Your task to perform on an android device: open app "Mercado Libre" (install if not already installed), go to login, and select forgot password Image 0: 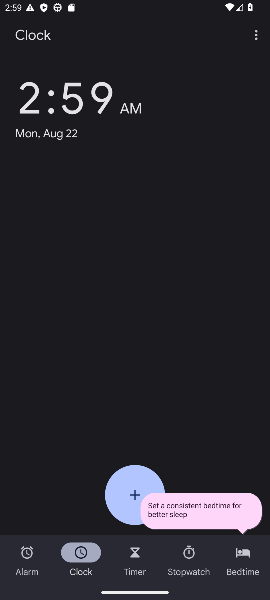
Step 0: press home button
Your task to perform on an android device: open app "Mercado Libre" (install if not already installed), go to login, and select forgot password Image 1: 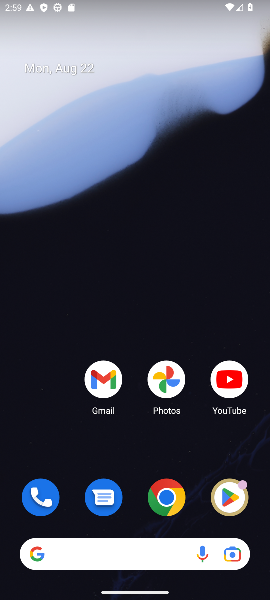
Step 1: click (222, 503)
Your task to perform on an android device: open app "Mercado Libre" (install if not already installed), go to login, and select forgot password Image 2: 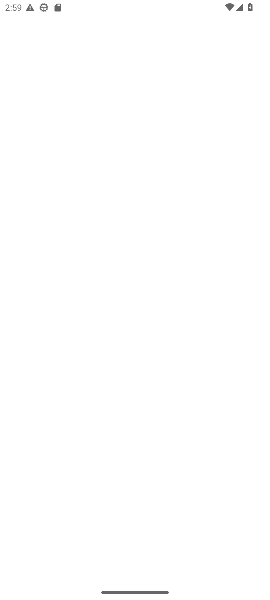
Step 2: press back button
Your task to perform on an android device: open app "Mercado Libre" (install if not already installed), go to login, and select forgot password Image 3: 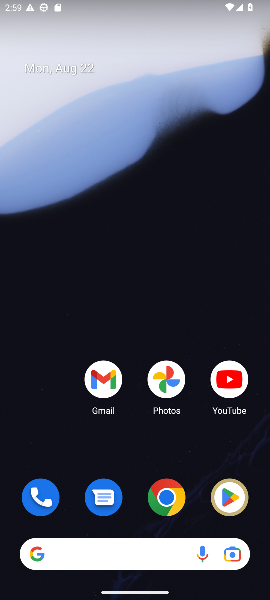
Step 3: click (230, 503)
Your task to perform on an android device: open app "Mercado Libre" (install if not already installed), go to login, and select forgot password Image 4: 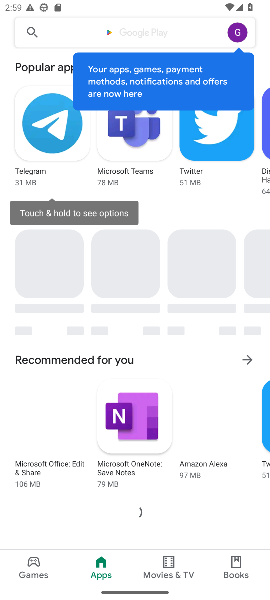
Step 4: click (145, 28)
Your task to perform on an android device: open app "Mercado Libre" (install if not already installed), go to login, and select forgot password Image 5: 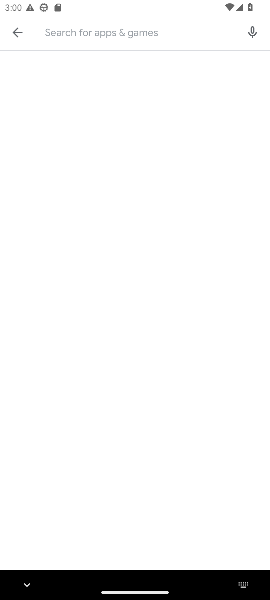
Step 5: type "Mercado Libre"
Your task to perform on an android device: open app "Mercado Libre" (install if not already installed), go to login, and select forgot password Image 6: 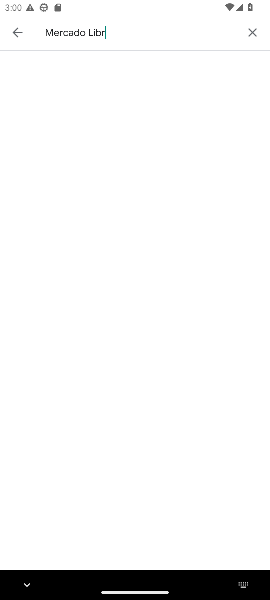
Step 6: type ""
Your task to perform on an android device: open app "Mercado Libre" (install if not already installed), go to login, and select forgot password Image 7: 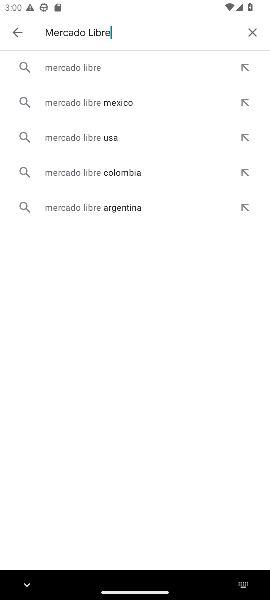
Step 7: click (79, 65)
Your task to perform on an android device: open app "Mercado Libre" (install if not already installed), go to login, and select forgot password Image 8: 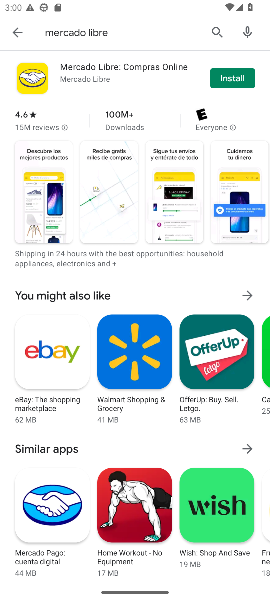
Step 8: click (218, 79)
Your task to perform on an android device: open app "Mercado Libre" (install if not already installed), go to login, and select forgot password Image 9: 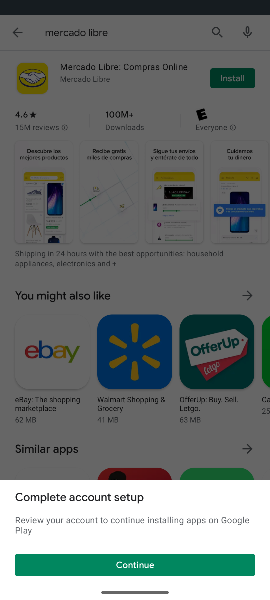
Step 9: click (175, 563)
Your task to perform on an android device: open app "Mercado Libre" (install if not already installed), go to login, and select forgot password Image 10: 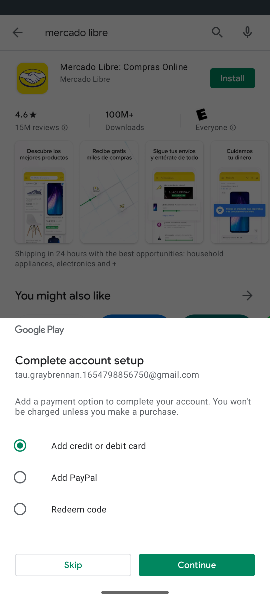
Step 10: click (67, 561)
Your task to perform on an android device: open app "Mercado Libre" (install if not already installed), go to login, and select forgot password Image 11: 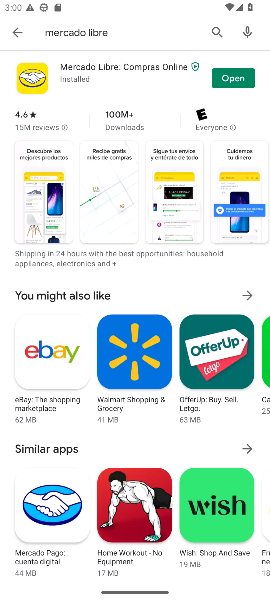
Step 11: click (242, 73)
Your task to perform on an android device: open app "Mercado Libre" (install if not already installed), go to login, and select forgot password Image 12: 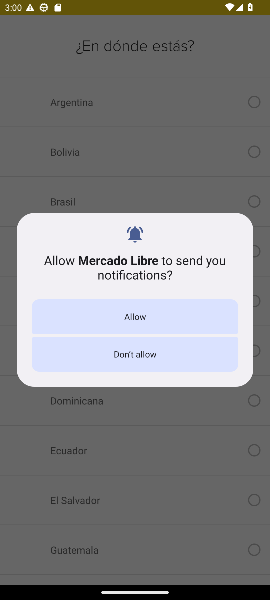
Step 12: click (122, 317)
Your task to perform on an android device: open app "Mercado Libre" (install if not already installed), go to login, and select forgot password Image 13: 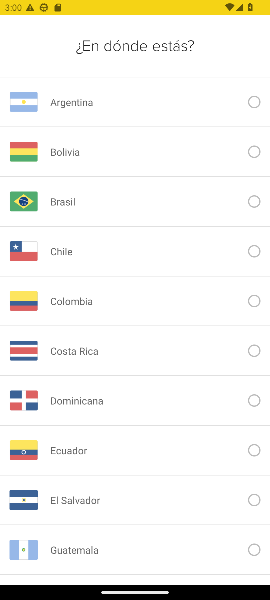
Step 13: task complete